Your task to perform on an android device: turn on priority inbox in the gmail app Image 0: 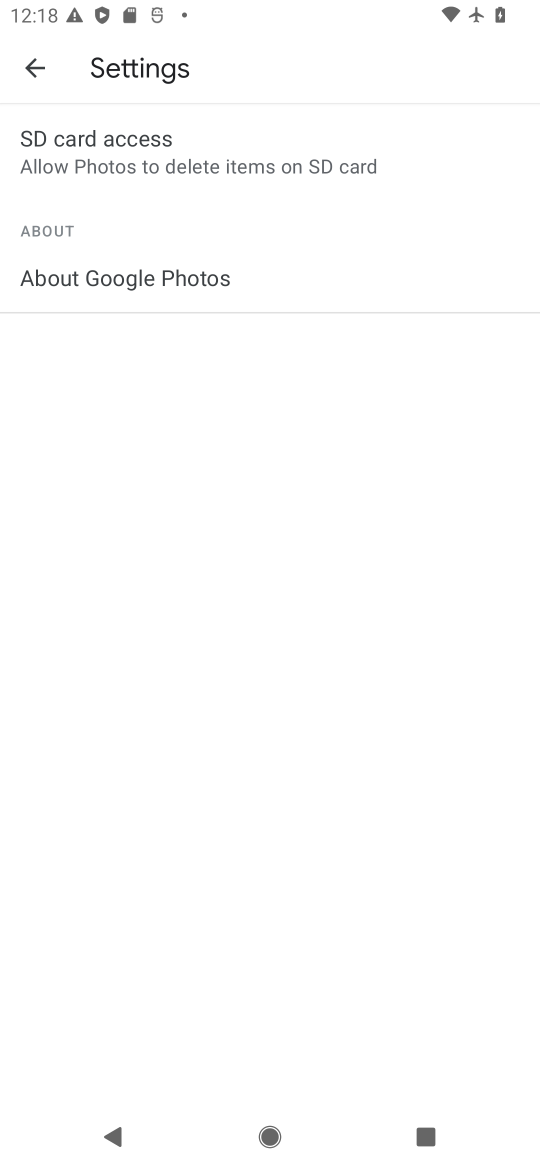
Step 0: press home button
Your task to perform on an android device: turn on priority inbox in the gmail app Image 1: 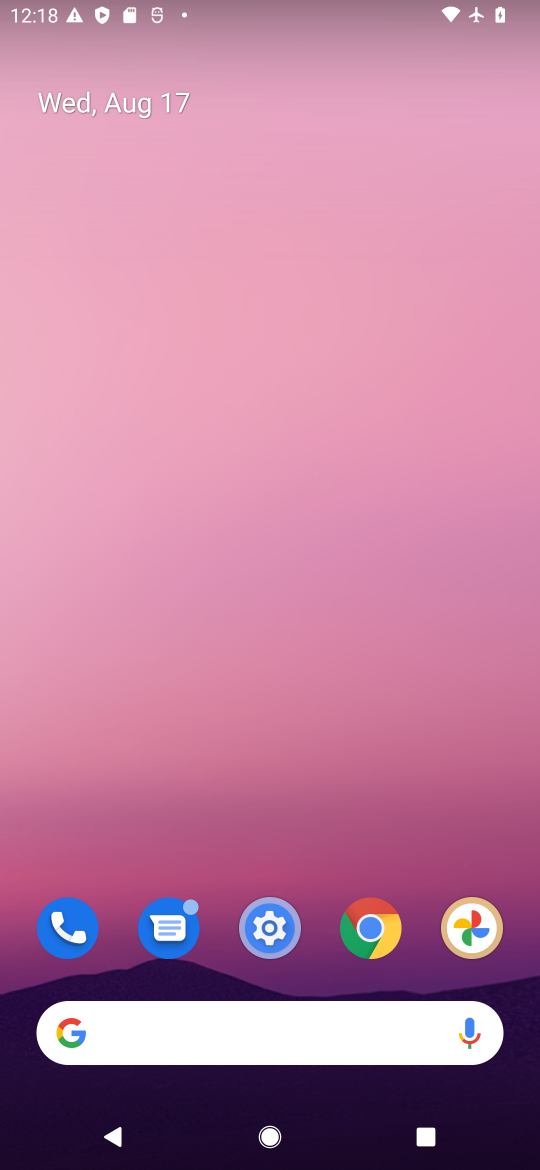
Step 1: drag from (287, 858) to (251, 150)
Your task to perform on an android device: turn on priority inbox in the gmail app Image 2: 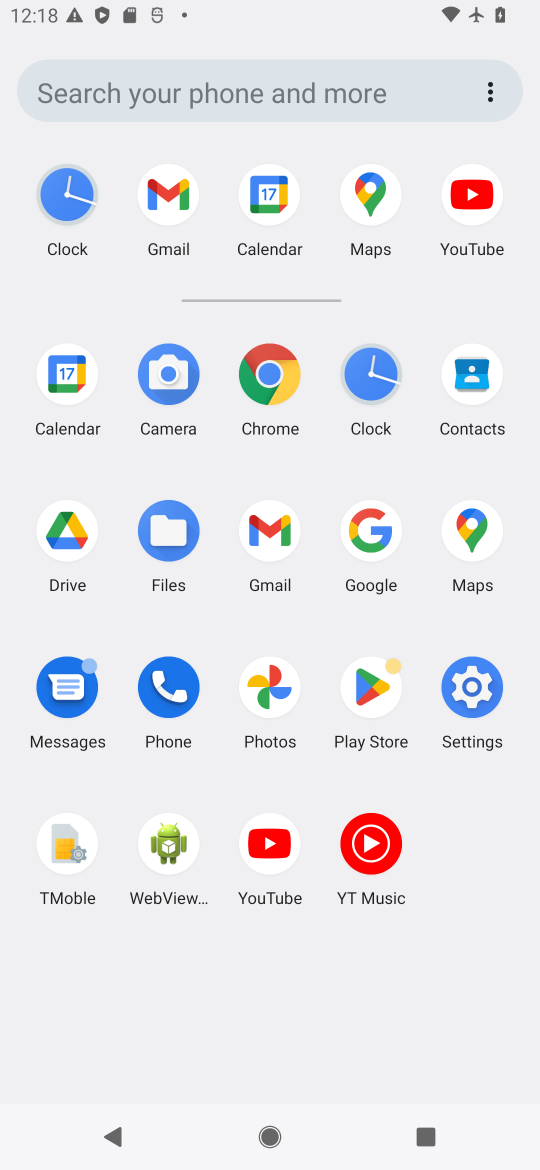
Step 2: click (284, 539)
Your task to perform on an android device: turn on priority inbox in the gmail app Image 3: 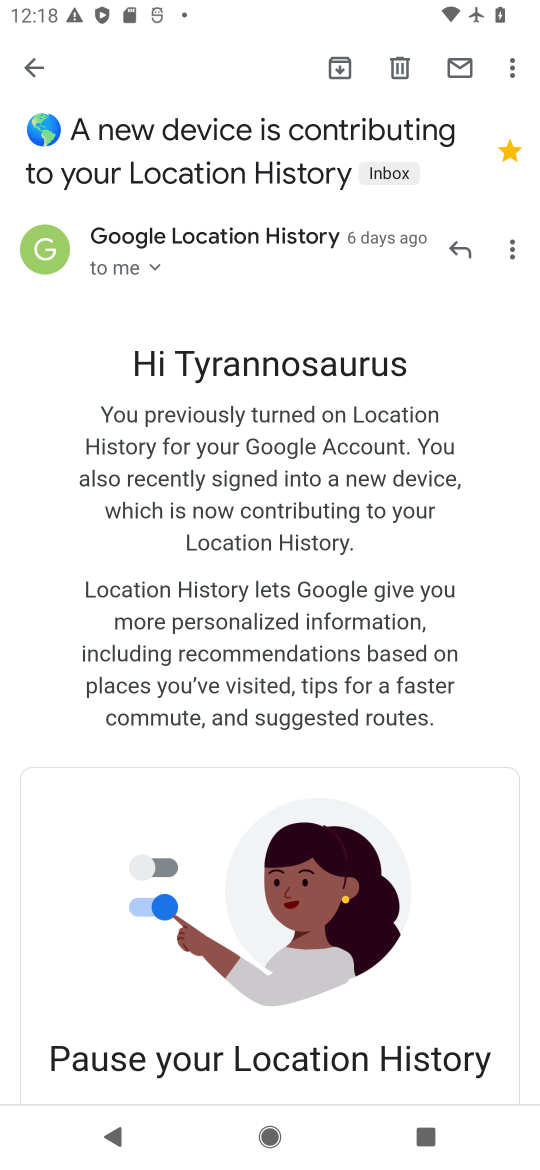
Step 3: click (41, 72)
Your task to perform on an android device: turn on priority inbox in the gmail app Image 4: 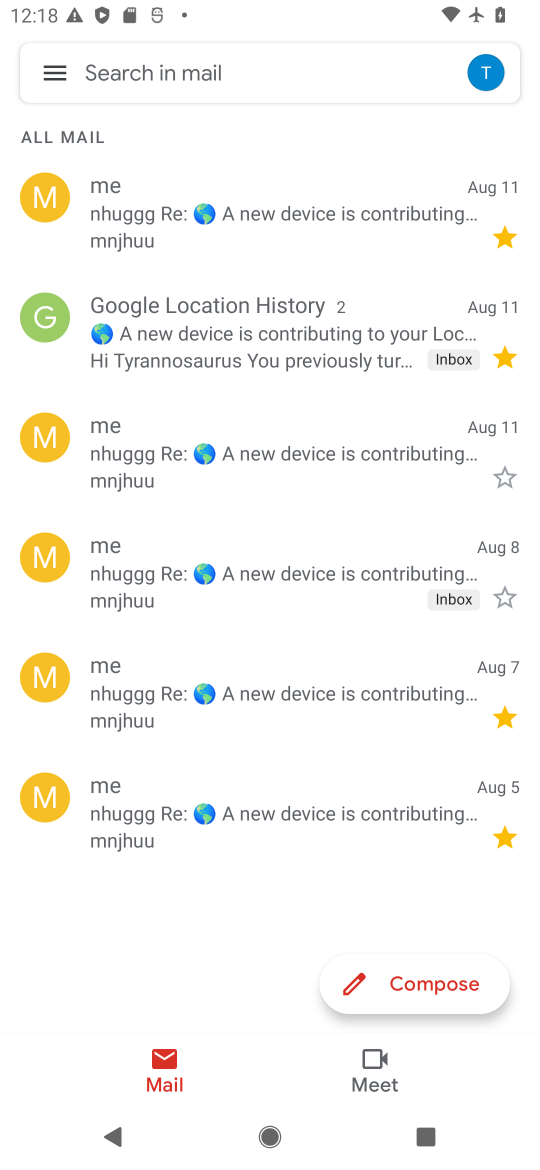
Step 4: click (41, 72)
Your task to perform on an android device: turn on priority inbox in the gmail app Image 5: 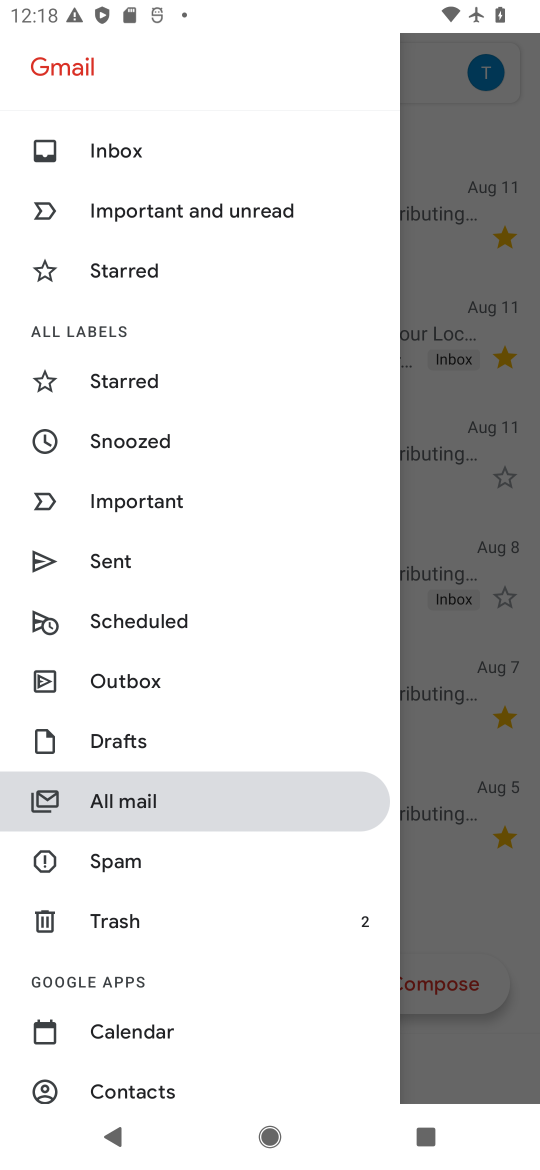
Step 5: drag from (185, 1022) to (236, 408)
Your task to perform on an android device: turn on priority inbox in the gmail app Image 6: 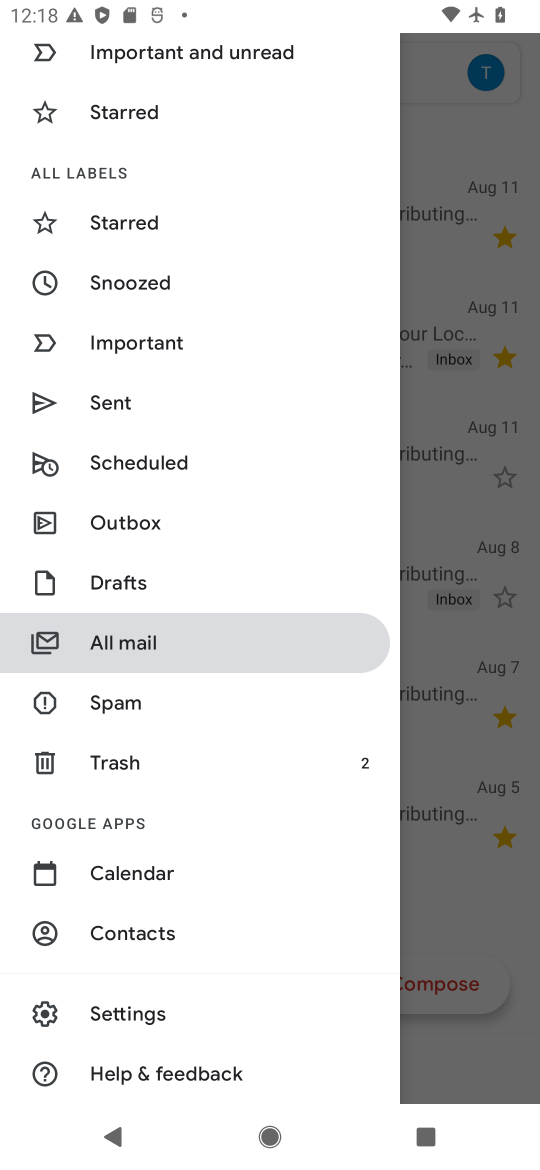
Step 6: click (190, 1018)
Your task to perform on an android device: turn on priority inbox in the gmail app Image 7: 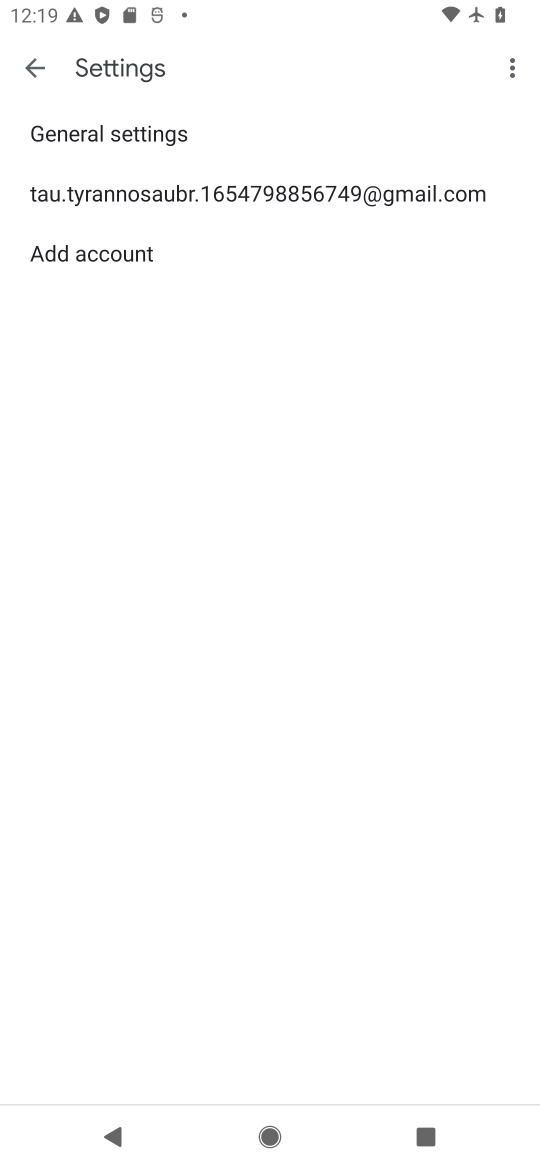
Step 7: click (158, 191)
Your task to perform on an android device: turn on priority inbox in the gmail app Image 8: 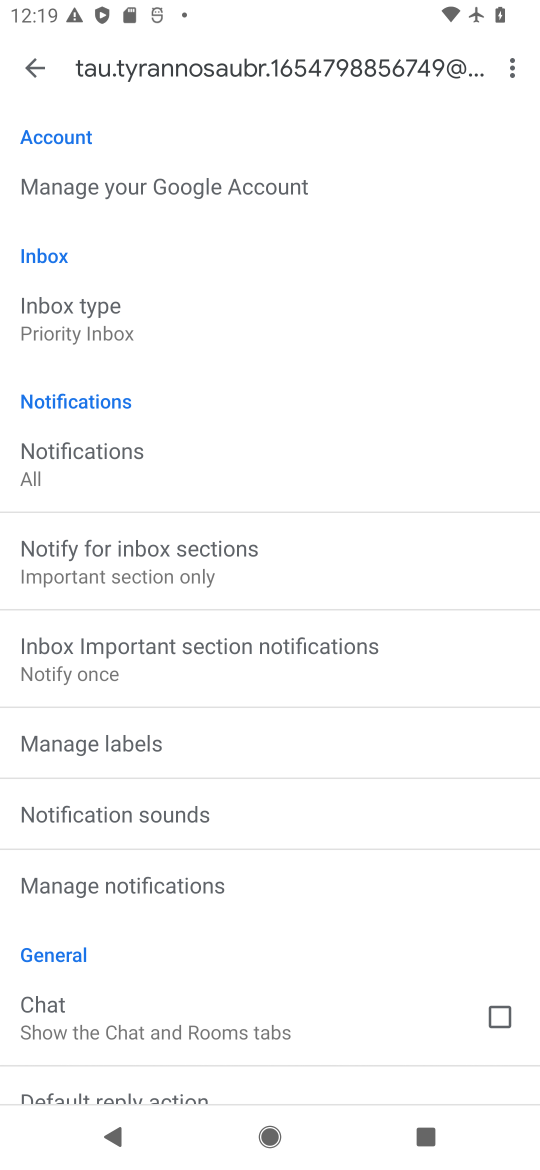
Step 8: click (160, 324)
Your task to perform on an android device: turn on priority inbox in the gmail app Image 9: 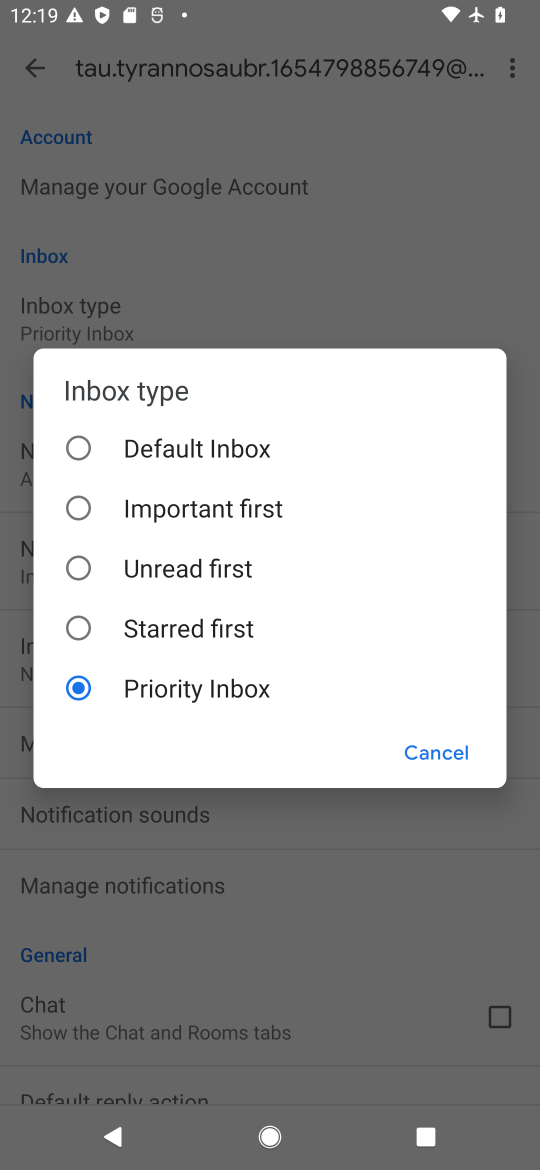
Step 9: task complete